Your task to perform on an android device: toggle airplane mode Image 0: 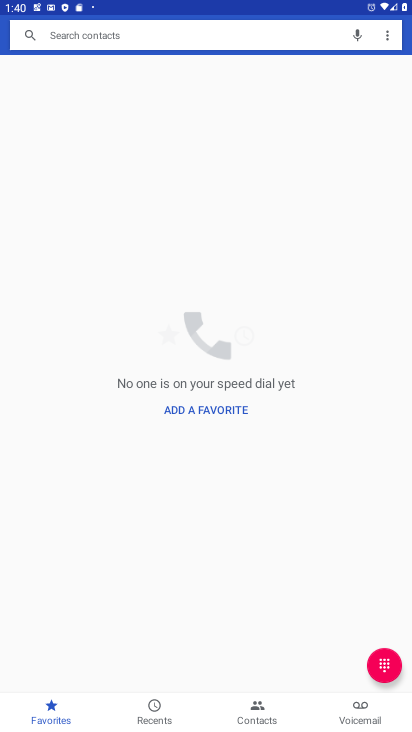
Step 0: press home button
Your task to perform on an android device: toggle airplane mode Image 1: 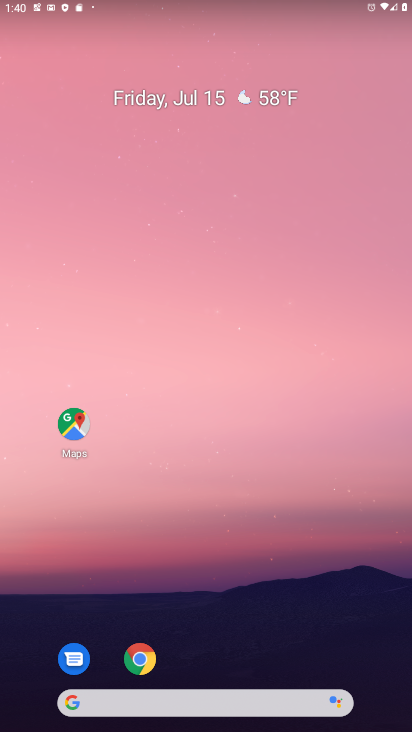
Step 1: drag from (251, 702) to (211, 250)
Your task to perform on an android device: toggle airplane mode Image 2: 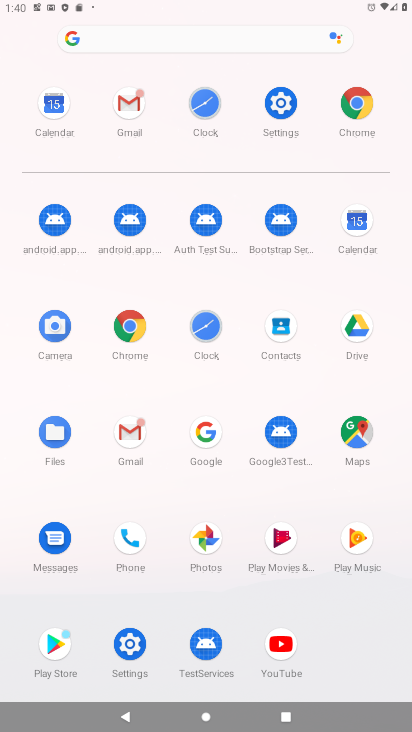
Step 2: click (280, 101)
Your task to perform on an android device: toggle airplane mode Image 3: 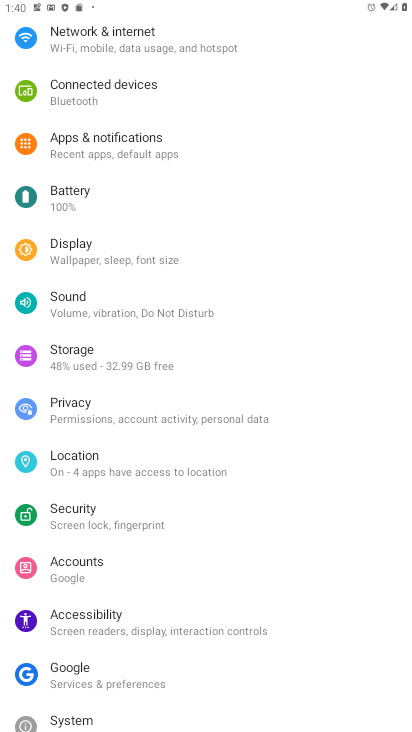
Step 3: click (135, 47)
Your task to perform on an android device: toggle airplane mode Image 4: 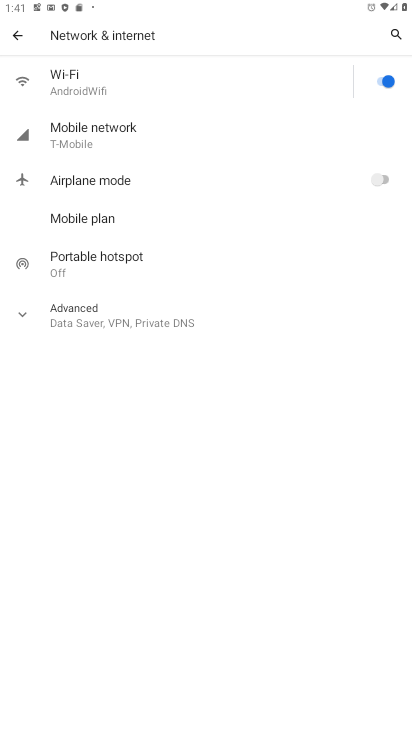
Step 4: click (373, 177)
Your task to perform on an android device: toggle airplane mode Image 5: 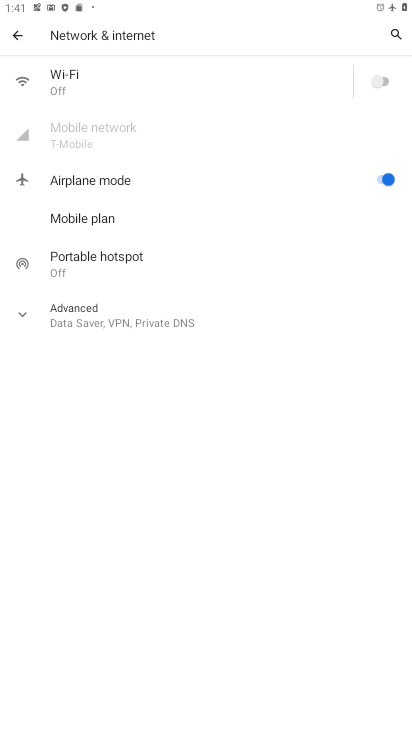
Step 5: task complete